Your task to perform on an android device: Is it going to rain today? Image 0: 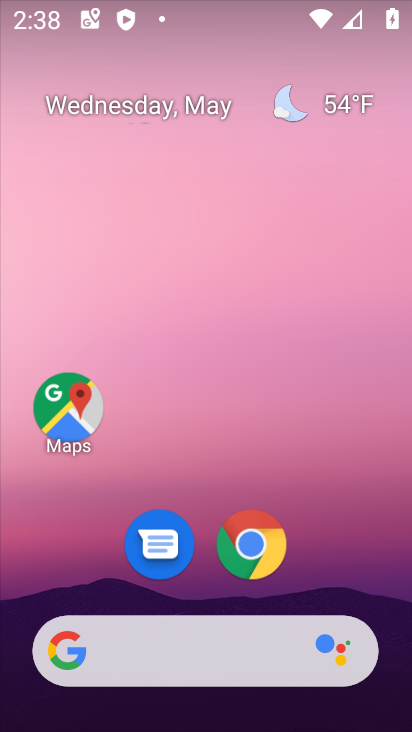
Step 0: drag from (350, 563) to (276, 116)
Your task to perform on an android device: Is it going to rain today? Image 1: 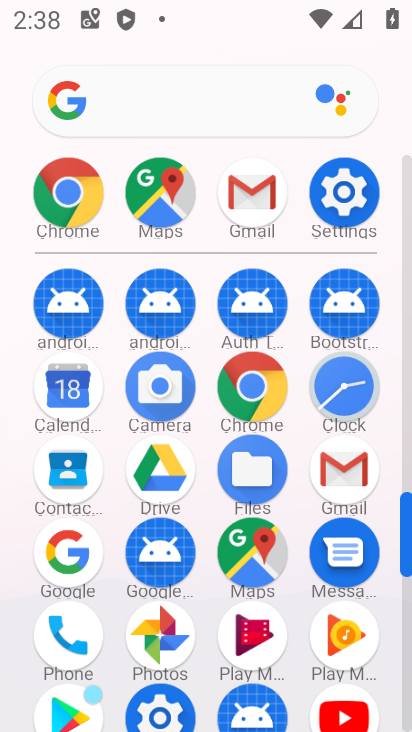
Step 1: click (174, 93)
Your task to perform on an android device: Is it going to rain today? Image 2: 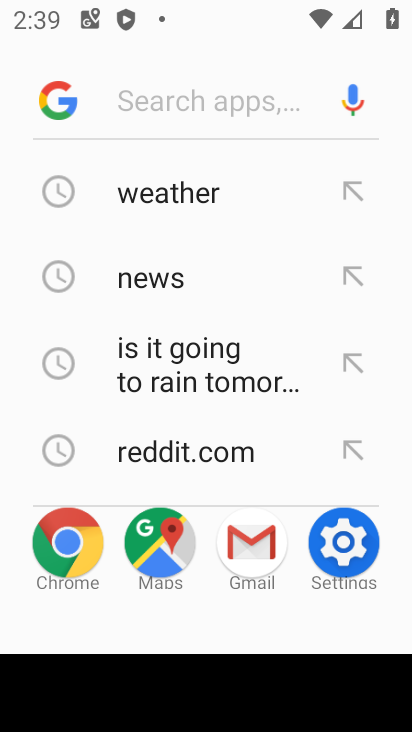
Step 2: click (212, 182)
Your task to perform on an android device: Is it going to rain today? Image 3: 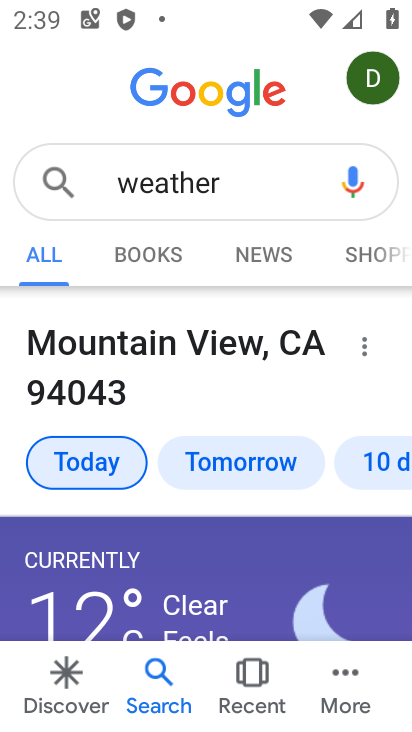
Step 3: task complete